Your task to perform on an android device: What's the weather like inToronto? Image 0: 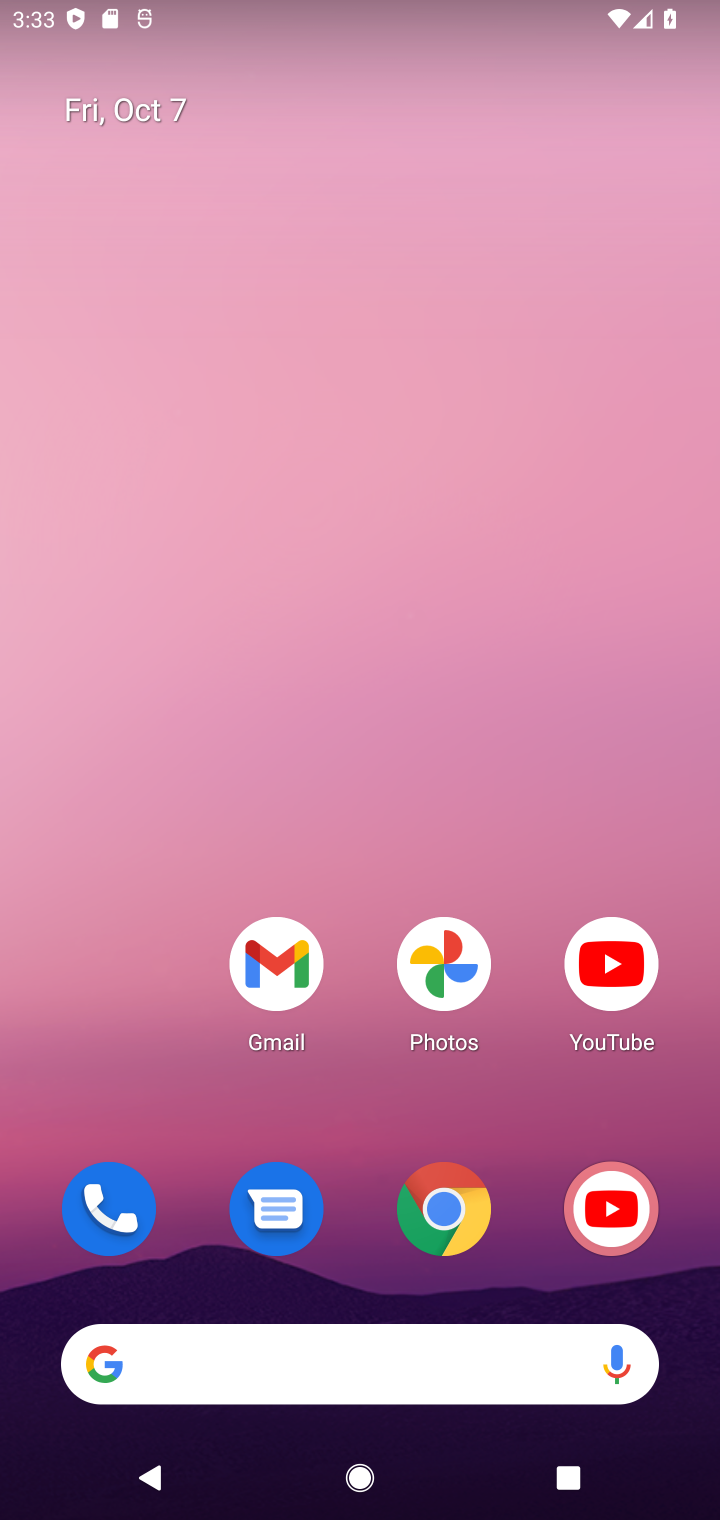
Step 0: press home button
Your task to perform on an android device: What's the weather like inToronto? Image 1: 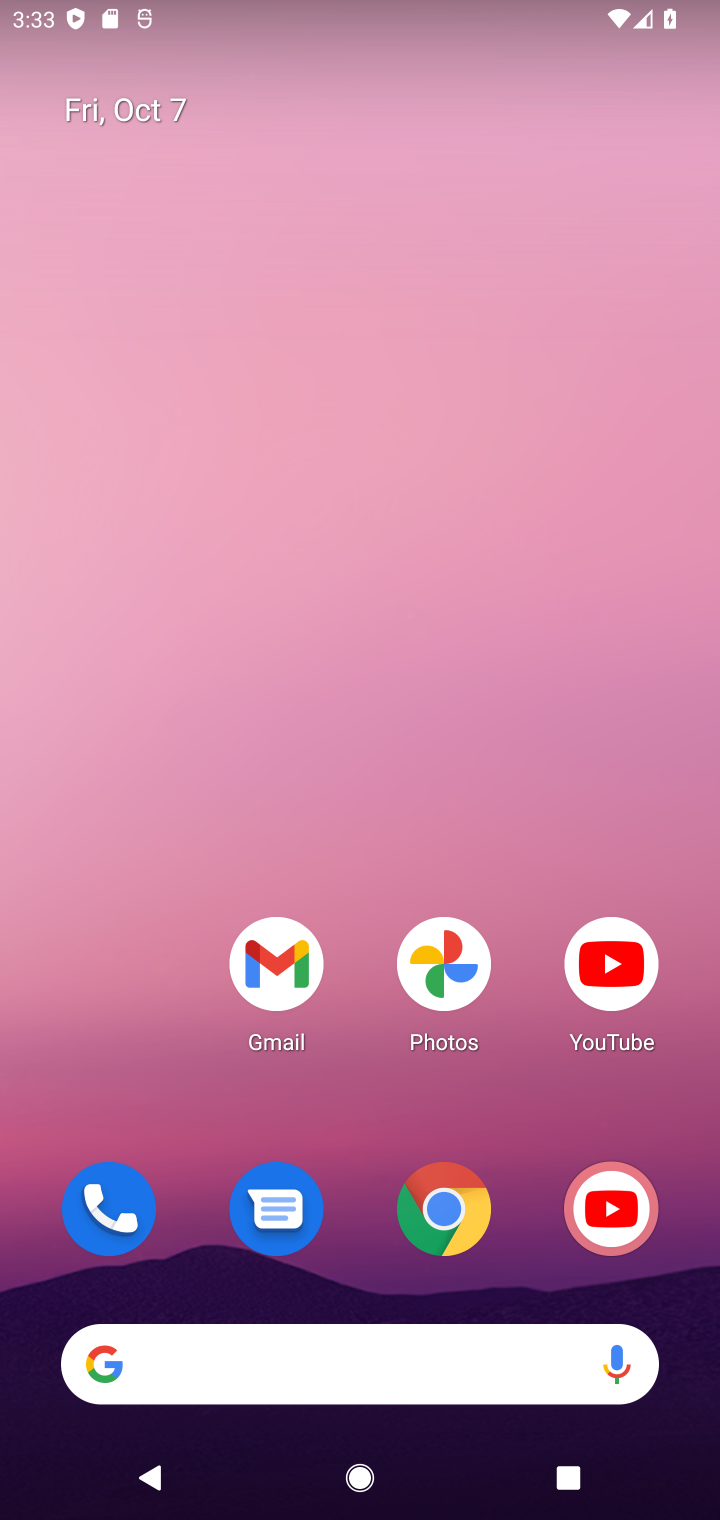
Step 1: click (386, 1370)
Your task to perform on an android device: What's the weather like inToronto? Image 2: 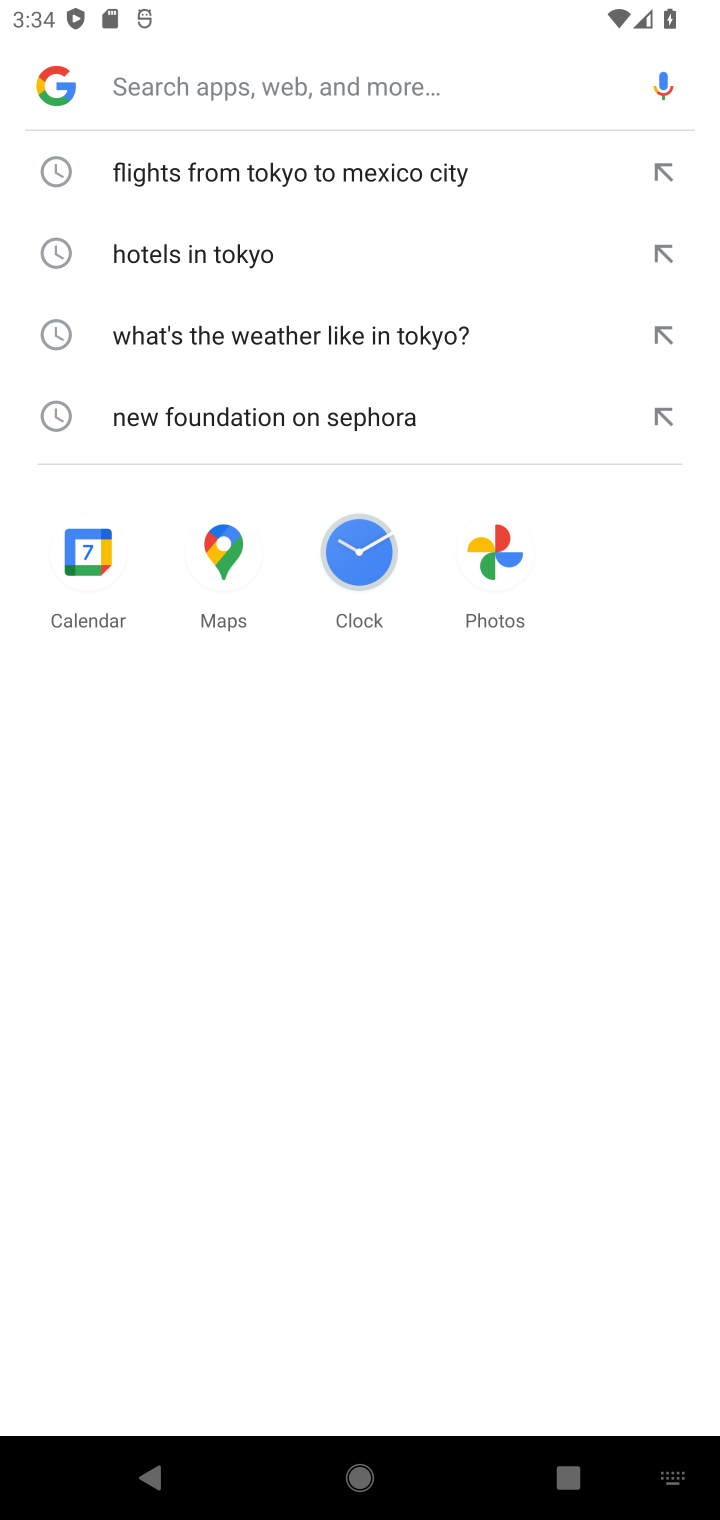
Step 2: type "What's the weather like inToronto?"
Your task to perform on an android device: What's the weather like inToronto? Image 3: 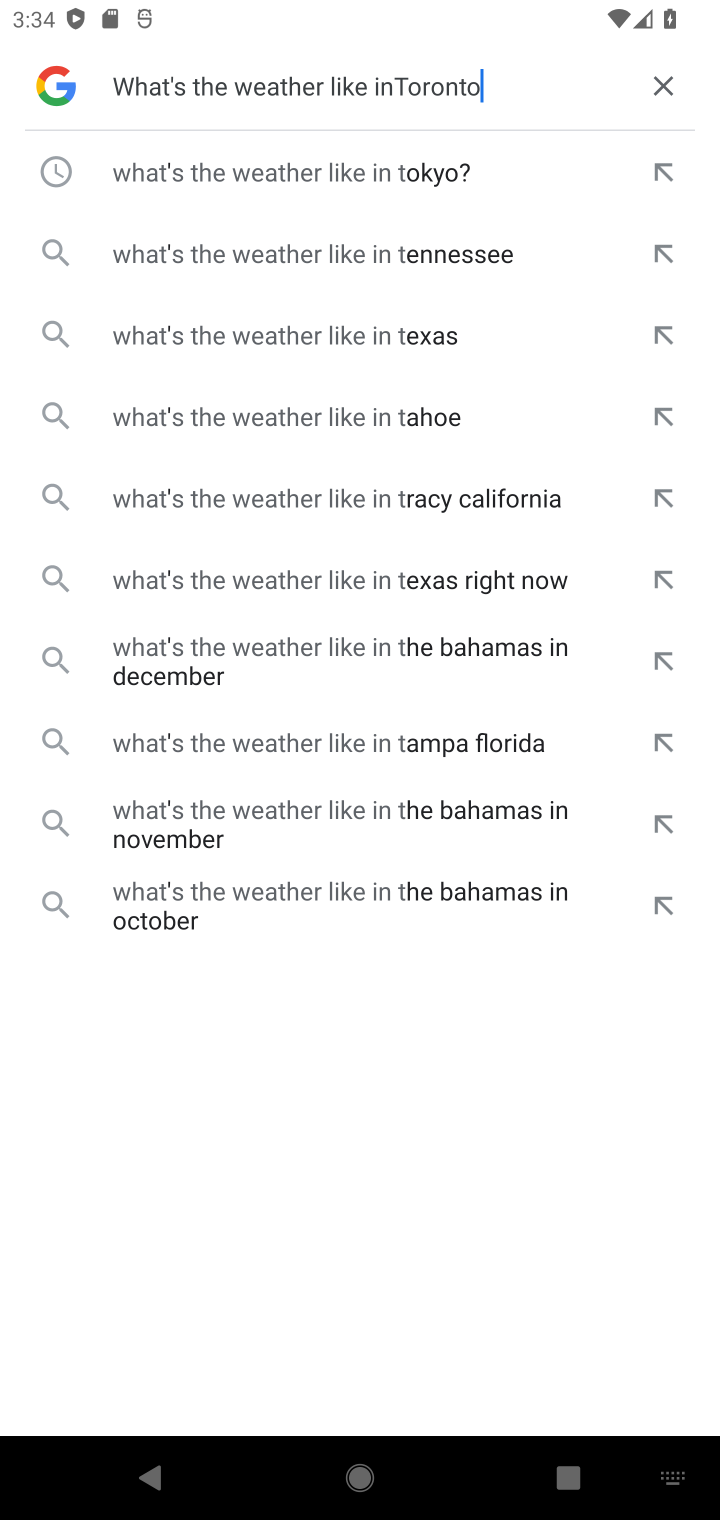
Step 3: press enter
Your task to perform on an android device: What's the weather like inToronto? Image 4: 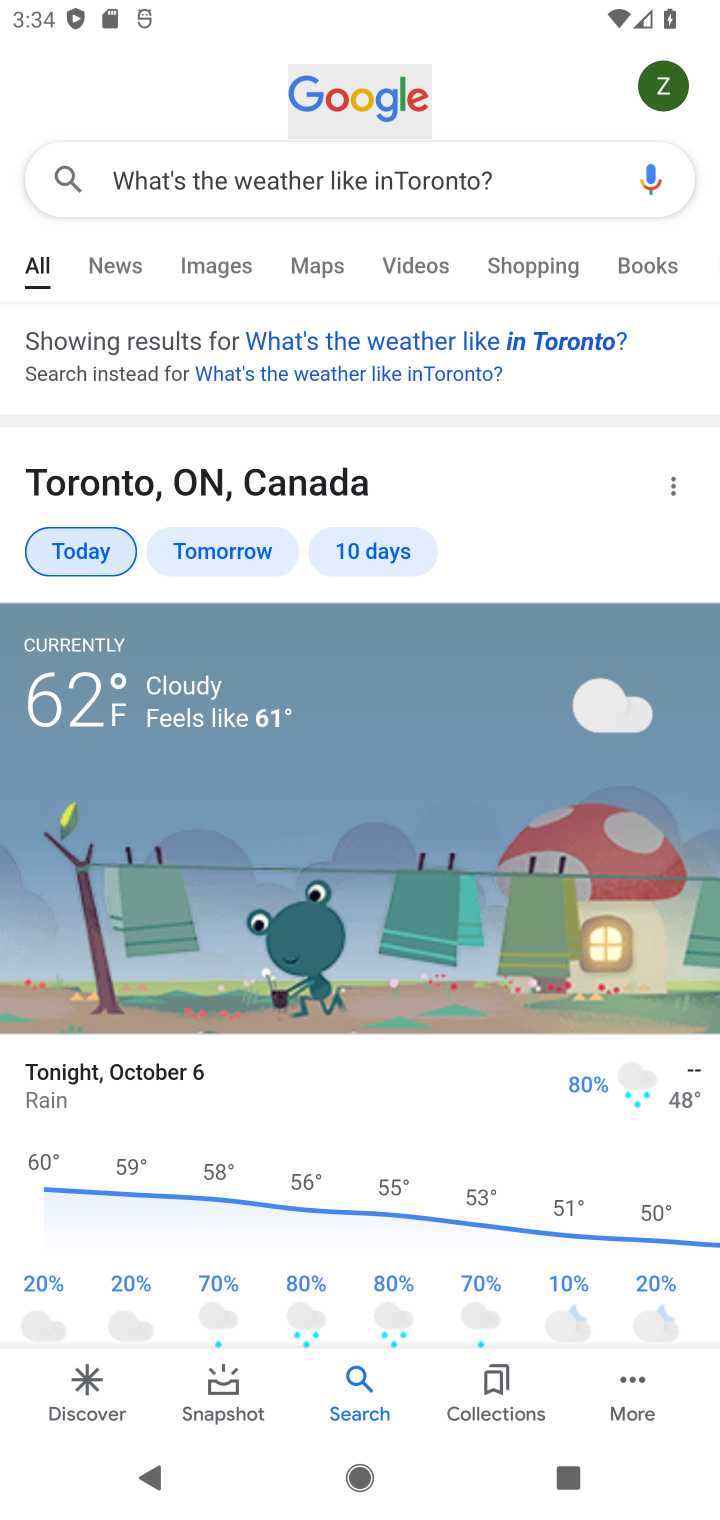
Step 4: task complete